Your task to perform on an android device: Go to Wikipedia Image 0: 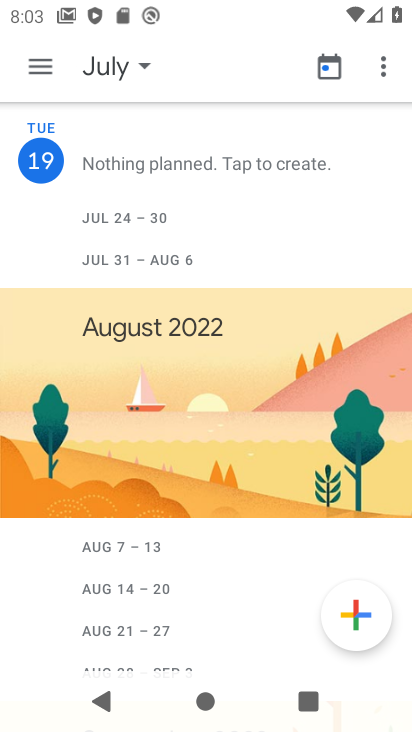
Step 0: press home button
Your task to perform on an android device: Go to Wikipedia Image 1: 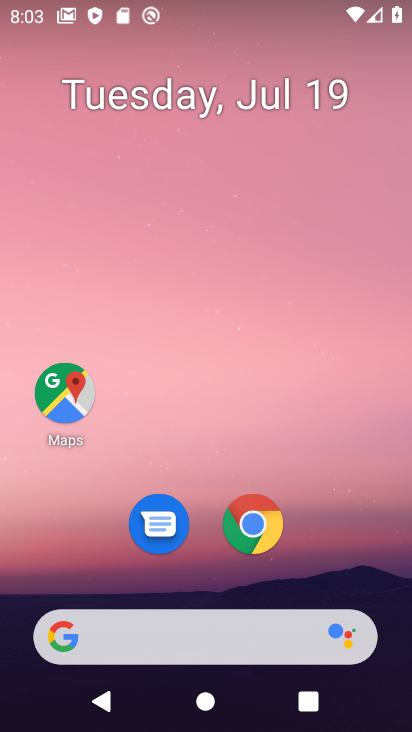
Step 1: click (255, 525)
Your task to perform on an android device: Go to Wikipedia Image 2: 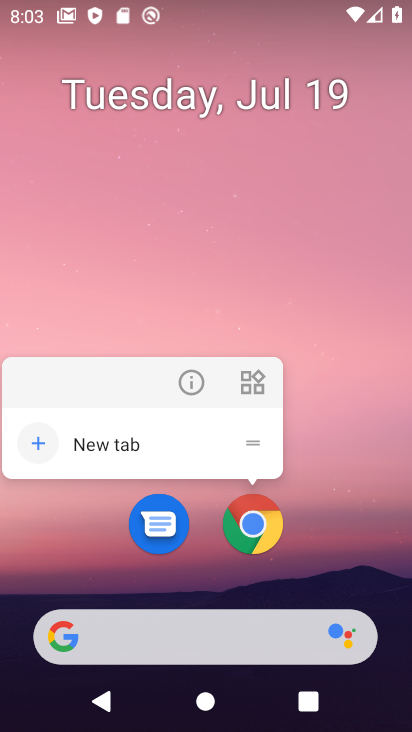
Step 2: click (255, 525)
Your task to perform on an android device: Go to Wikipedia Image 3: 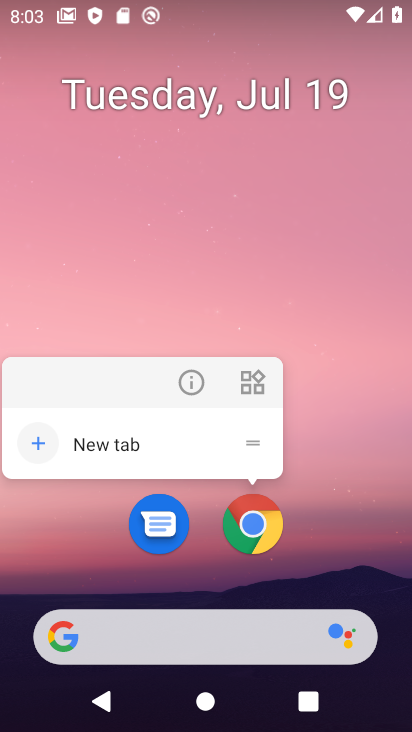
Step 3: click (255, 525)
Your task to perform on an android device: Go to Wikipedia Image 4: 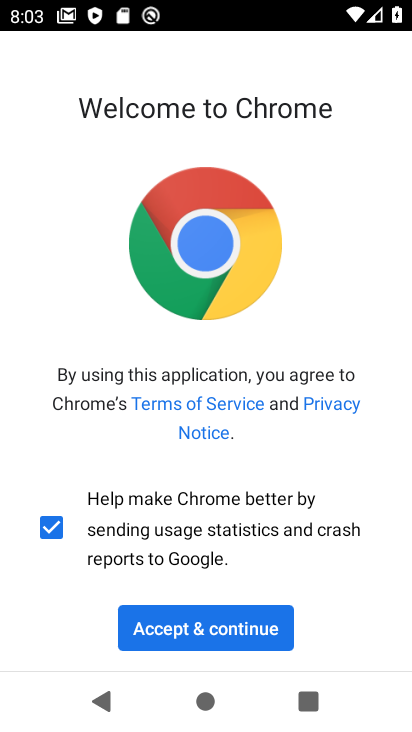
Step 4: click (232, 631)
Your task to perform on an android device: Go to Wikipedia Image 5: 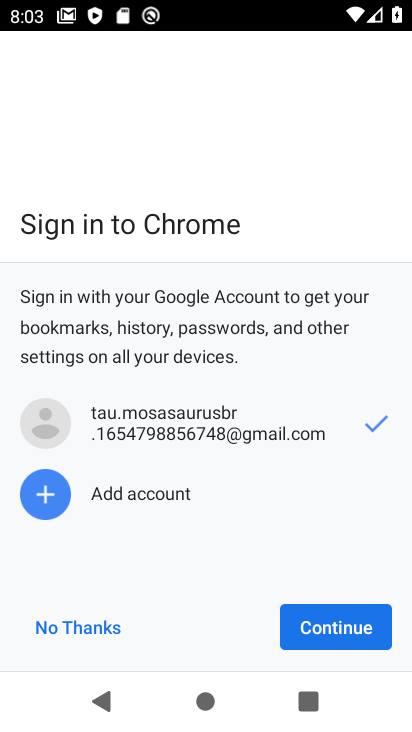
Step 5: click (320, 623)
Your task to perform on an android device: Go to Wikipedia Image 6: 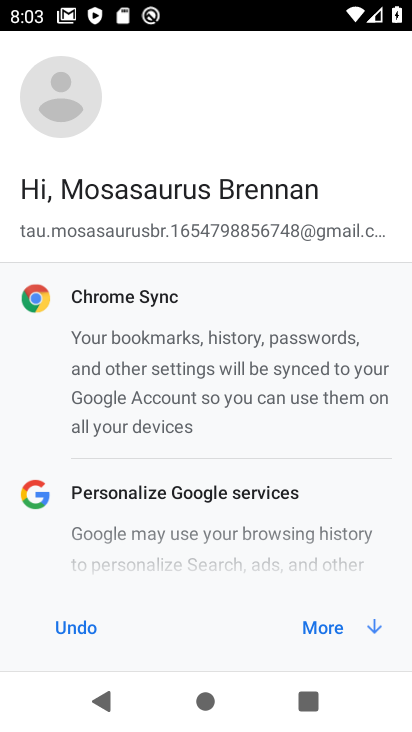
Step 6: click (332, 620)
Your task to perform on an android device: Go to Wikipedia Image 7: 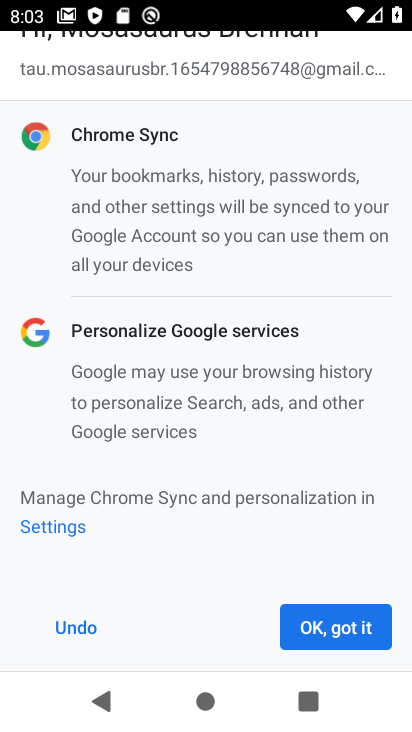
Step 7: click (332, 620)
Your task to perform on an android device: Go to Wikipedia Image 8: 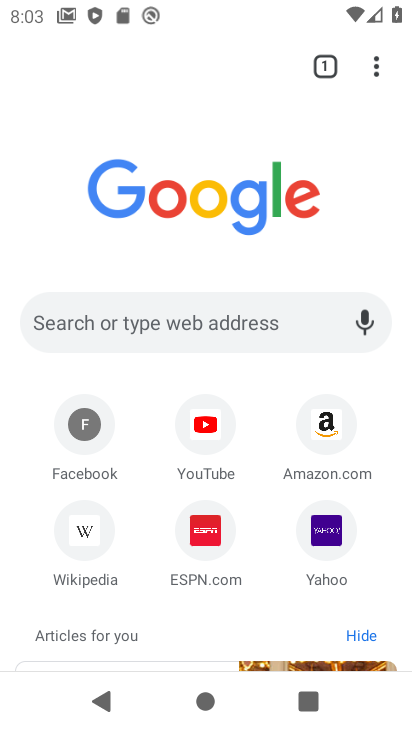
Step 8: click (87, 529)
Your task to perform on an android device: Go to Wikipedia Image 9: 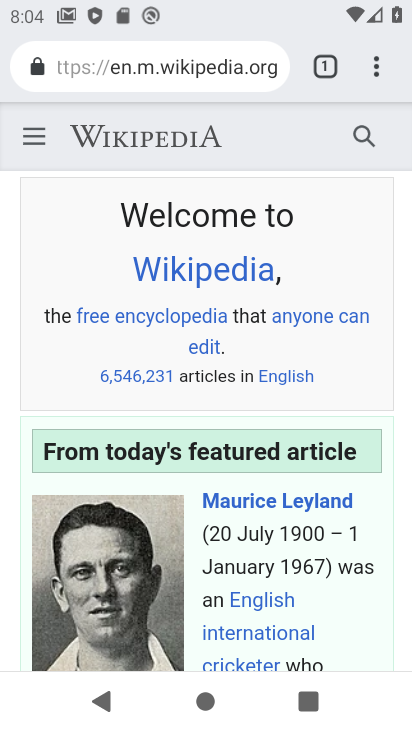
Step 9: task complete